Your task to perform on an android device: toggle show notifications on the lock screen Image 0: 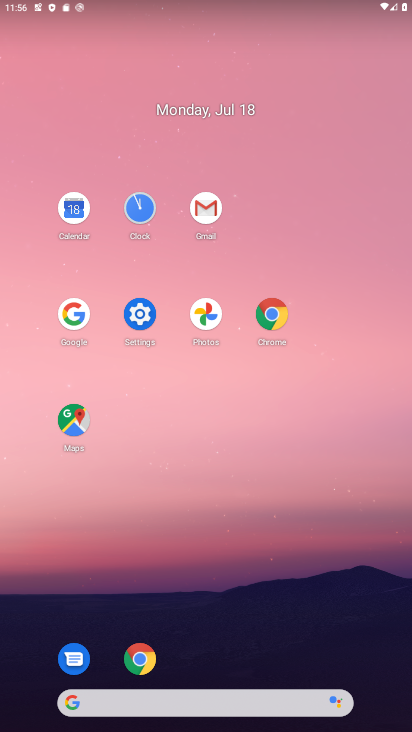
Step 0: click (143, 318)
Your task to perform on an android device: toggle show notifications on the lock screen Image 1: 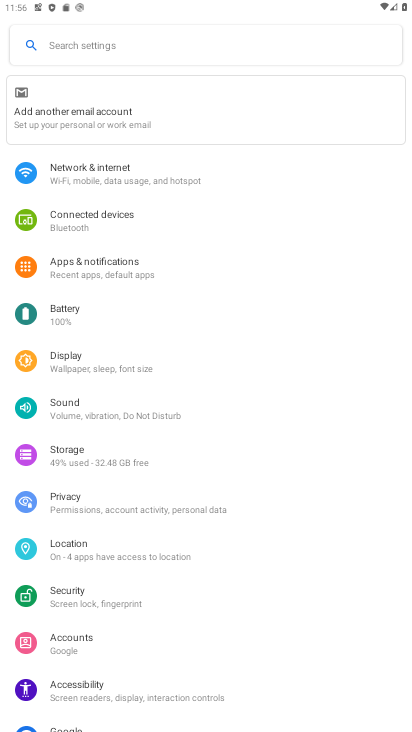
Step 1: click (212, 271)
Your task to perform on an android device: toggle show notifications on the lock screen Image 2: 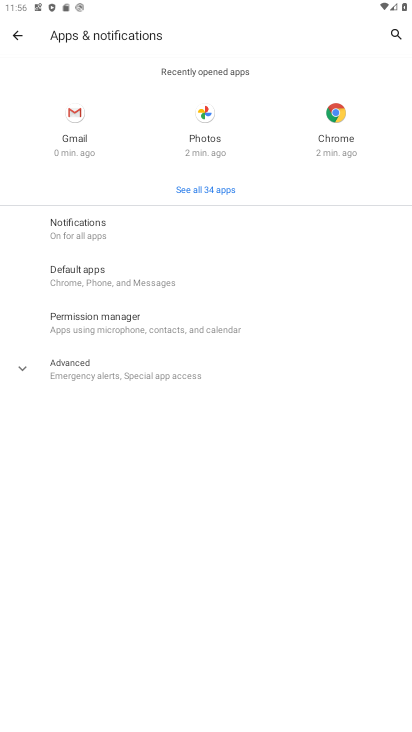
Step 2: click (171, 228)
Your task to perform on an android device: toggle show notifications on the lock screen Image 3: 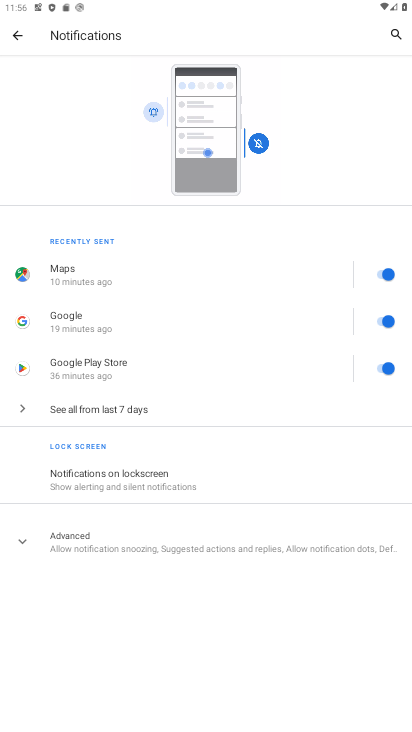
Step 3: click (150, 531)
Your task to perform on an android device: toggle show notifications on the lock screen Image 4: 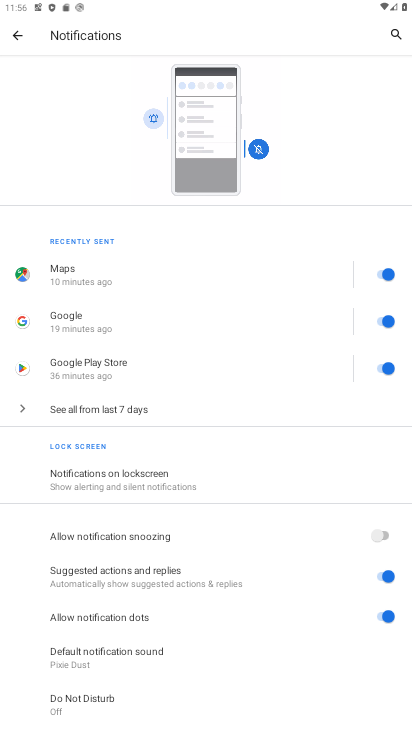
Step 4: click (309, 481)
Your task to perform on an android device: toggle show notifications on the lock screen Image 5: 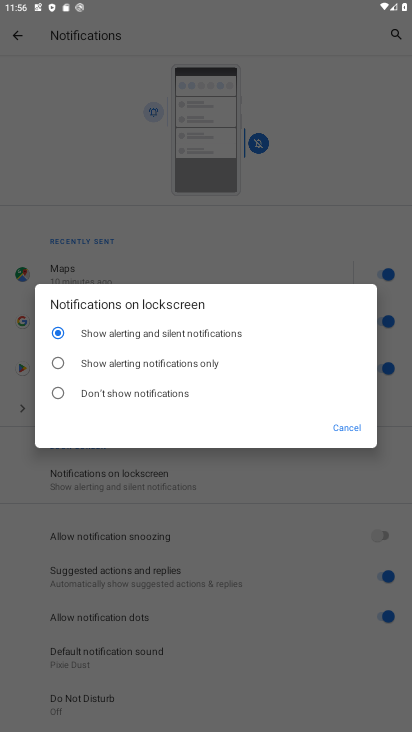
Step 5: click (142, 361)
Your task to perform on an android device: toggle show notifications on the lock screen Image 6: 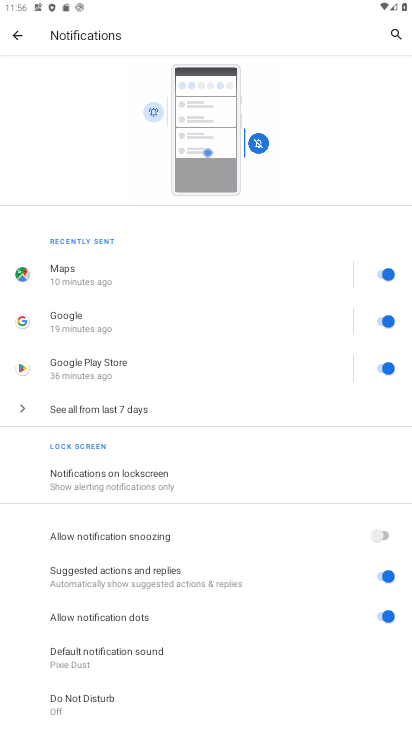
Step 6: task complete